Your task to perform on an android device: clear all cookies in the chrome app Image 0: 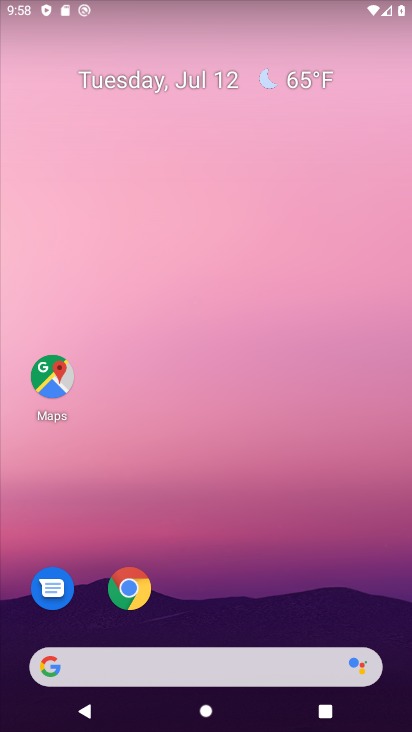
Step 0: click (129, 584)
Your task to perform on an android device: clear all cookies in the chrome app Image 1: 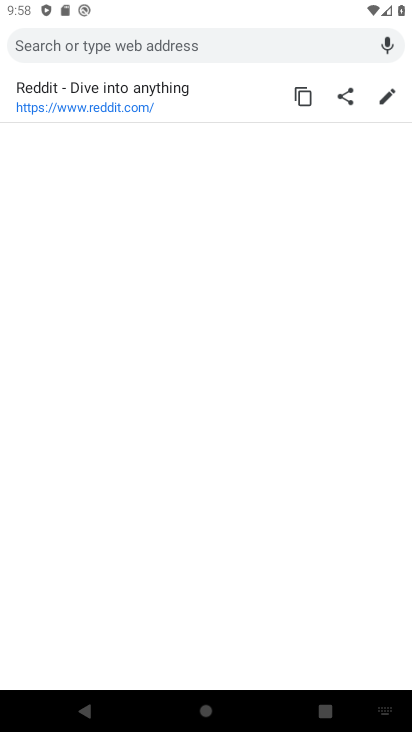
Step 1: click (78, 45)
Your task to perform on an android device: clear all cookies in the chrome app Image 2: 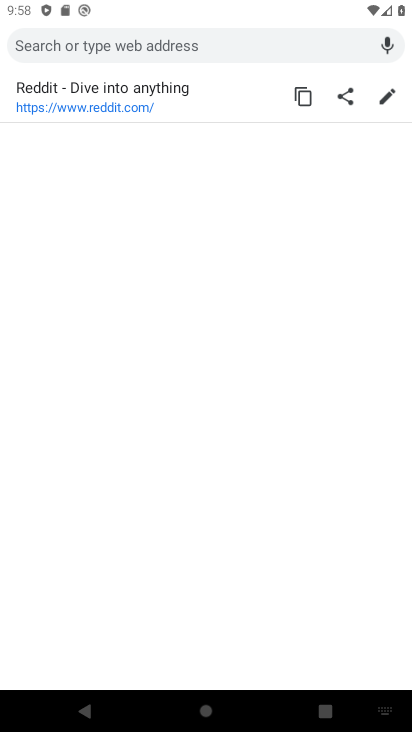
Step 2: drag from (72, 37) to (172, 291)
Your task to perform on an android device: clear all cookies in the chrome app Image 3: 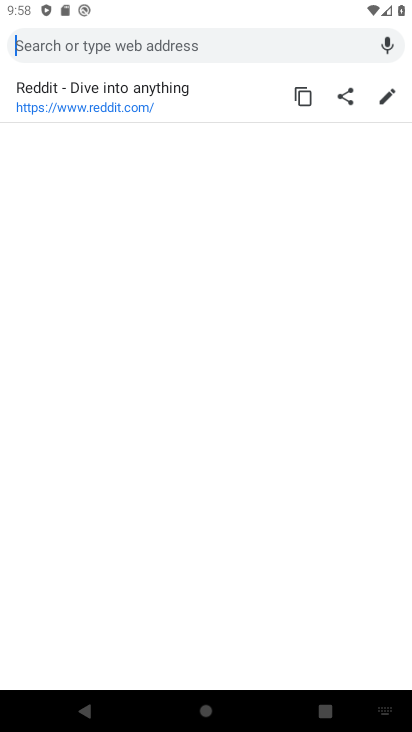
Step 3: click (222, 509)
Your task to perform on an android device: clear all cookies in the chrome app Image 4: 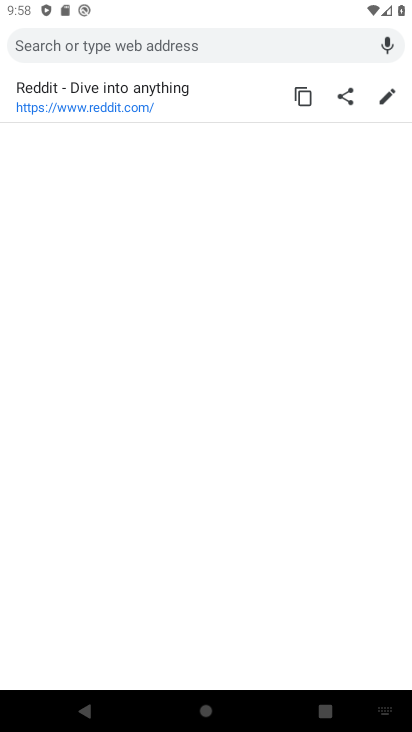
Step 4: press home button
Your task to perform on an android device: clear all cookies in the chrome app Image 5: 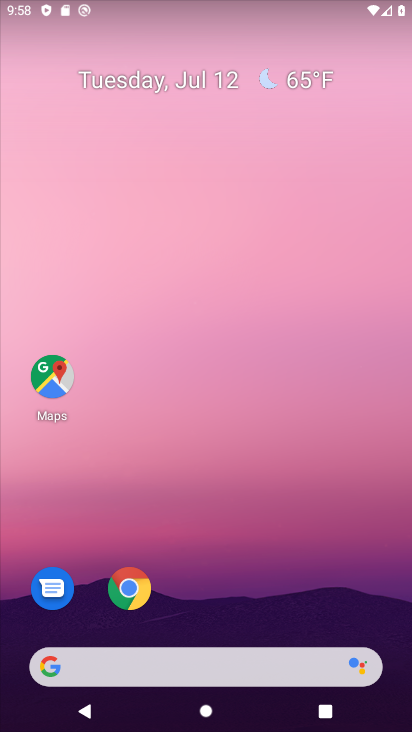
Step 5: click (123, 591)
Your task to perform on an android device: clear all cookies in the chrome app Image 6: 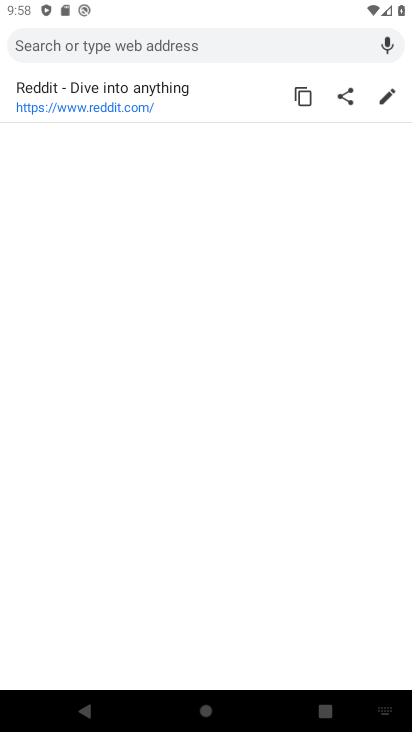
Step 6: click (288, 61)
Your task to perform on an android device: clear all cookies in the chrome app Image 7: 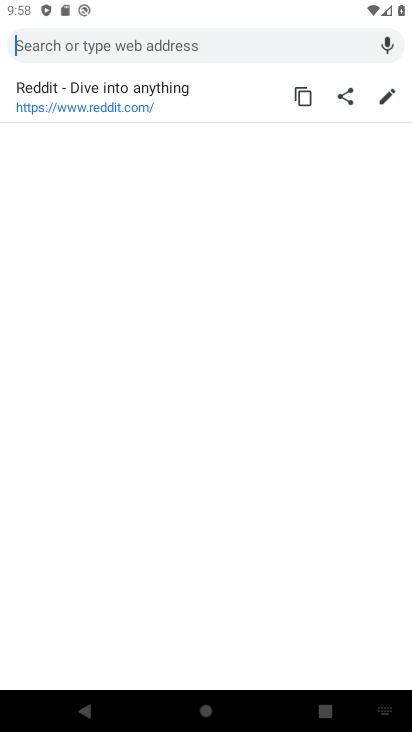
Step 7: click (269, 24)
Your task to perform on an android device: clear all cookies in the chrome app Image 8: 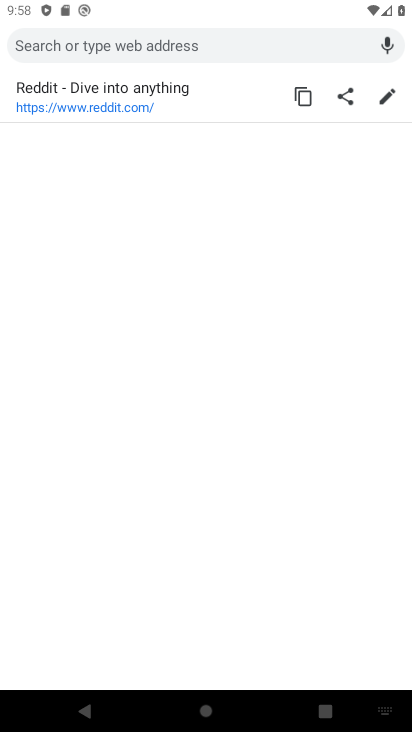
Step 8: click (157, 265)
Your task to perform on an android device: clear all cookies in the chrome app Image 9: 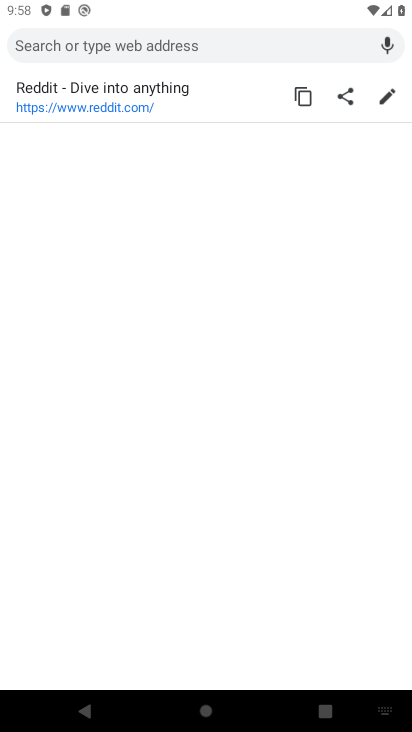
Step 9: task complete